Your task to perform on an android device: Show the shopping cart on costco. Search for "logitech g pro" on costco, select the first entry, and add it to the cart. Image 0: 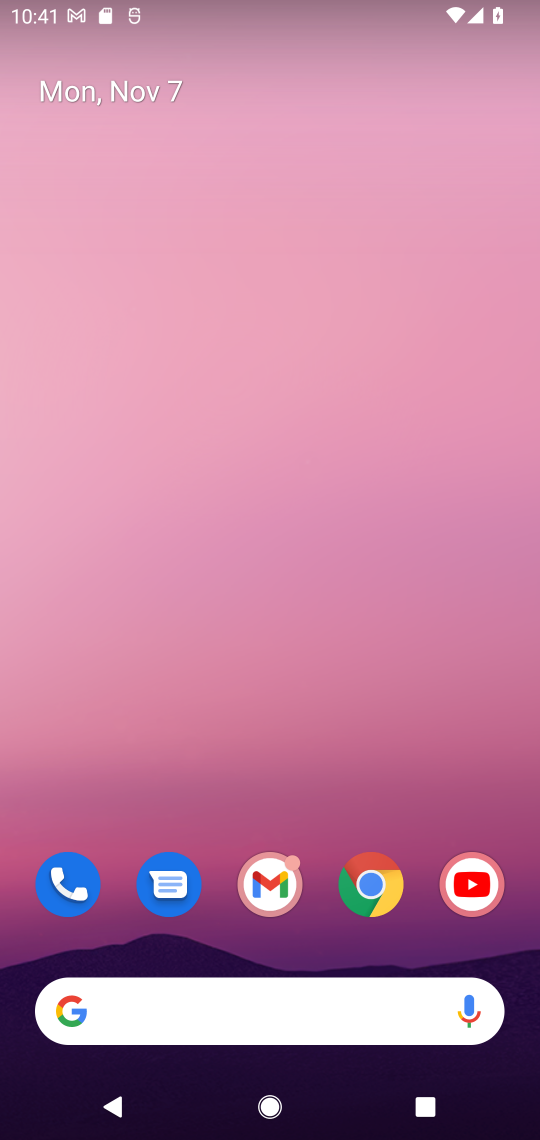
Step 0: click (377, 890)
Your task to perform on an android device: Show the shopping cart on costco. Search for "logitech g pro" on costco, select the first entry, and add it to the cart. Image 1: 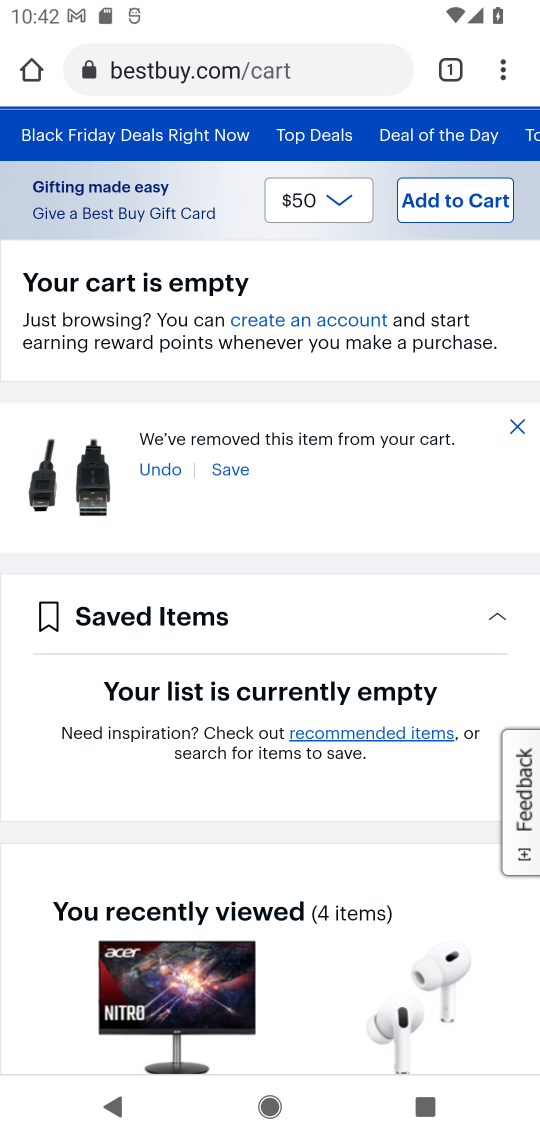
Step 1: click (269, 50)
Your task to perform on an android device: Show the shopping cart on costco. Search for "logitech g pro" on costco, select the first entry, and add it to the cart. Image 2: 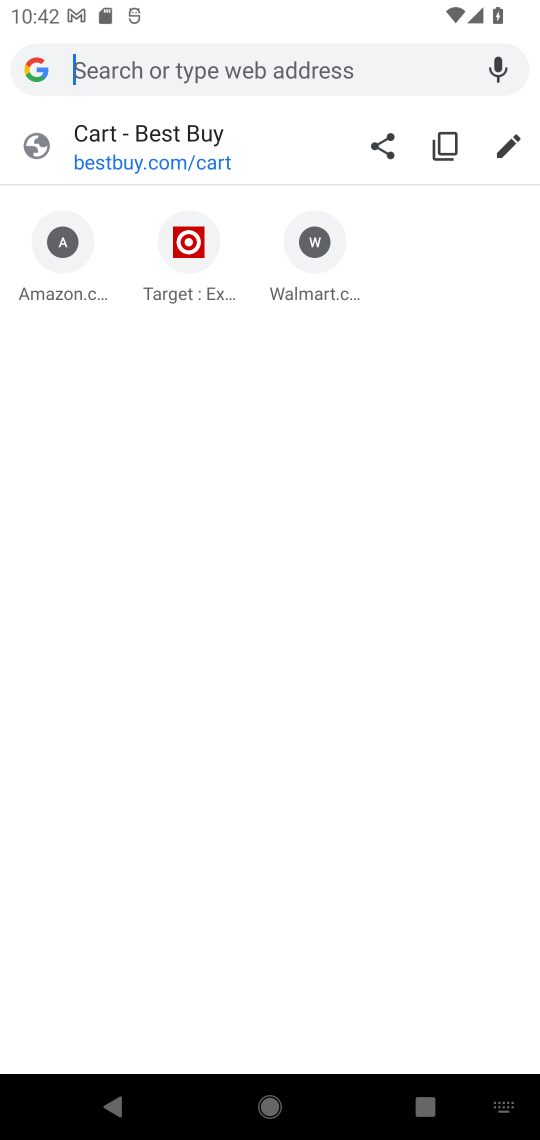
Step 2: type "costco"
Your task to perform on an android device: Show the shopping cart on costco. Search for "logitech g pro" on costco, select the first entry, and add it to the cart. Image 3: 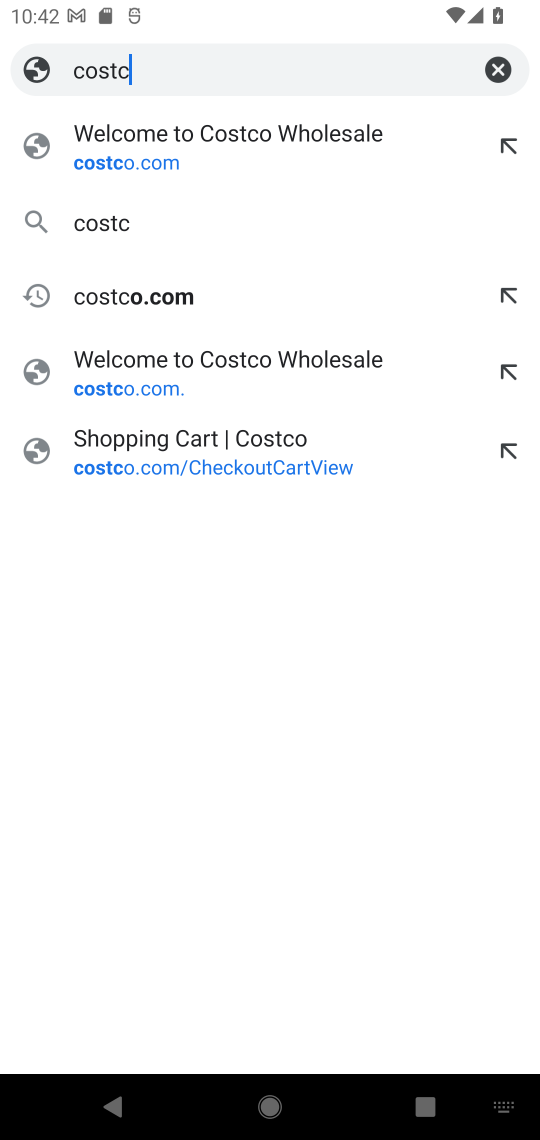
Step 3: press enter
Your task to perform on an android device: Show the shopping cart on costco. Search for "logitech g pro" on costco, select the first entry, and add it to the cart. Image 4: 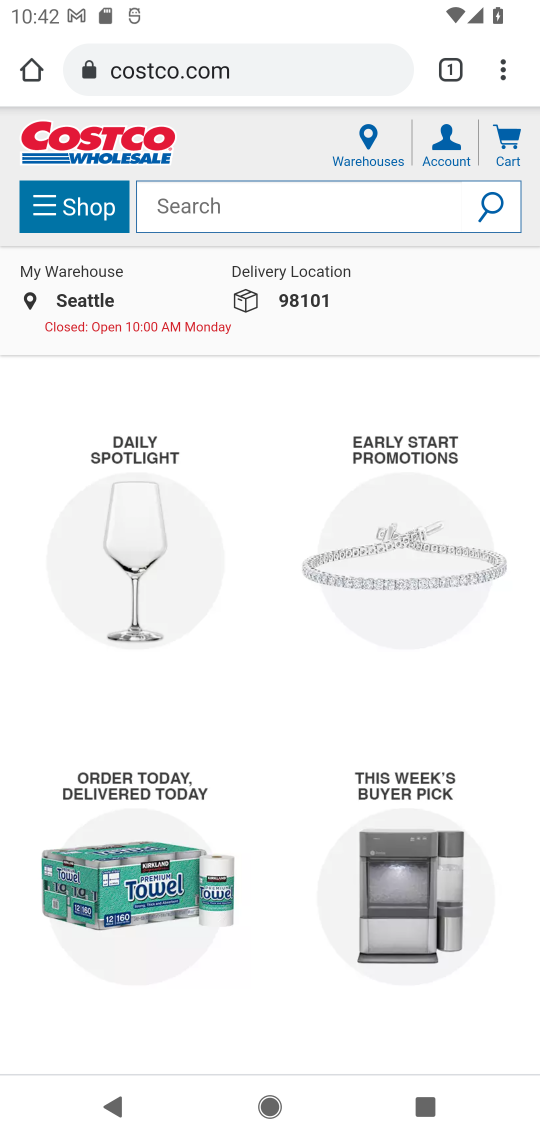
Step 4: click (503, 140)
Your task to perform on an android device: Show the shopping cart on costco. Search for "logitech g pro" on costco, select the first entry, and add it to the cart. Image 5: 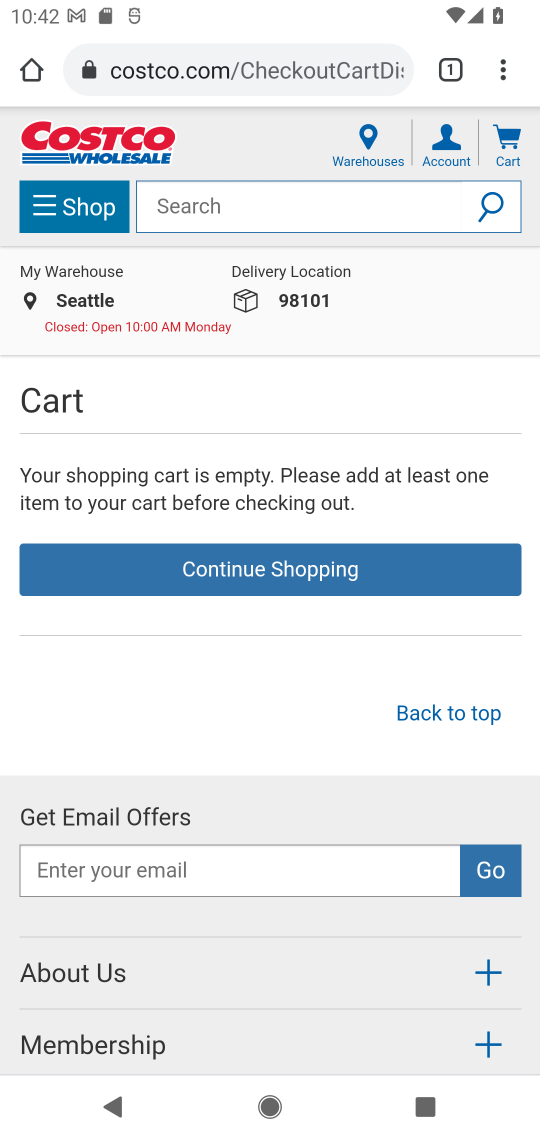
Step 5: click (305, 187)
Your task to perform on an android device: Show the shopping cart on costco. Search for "logitech g pro" on costco, select the first entry, and add it to the cart. Image 6: 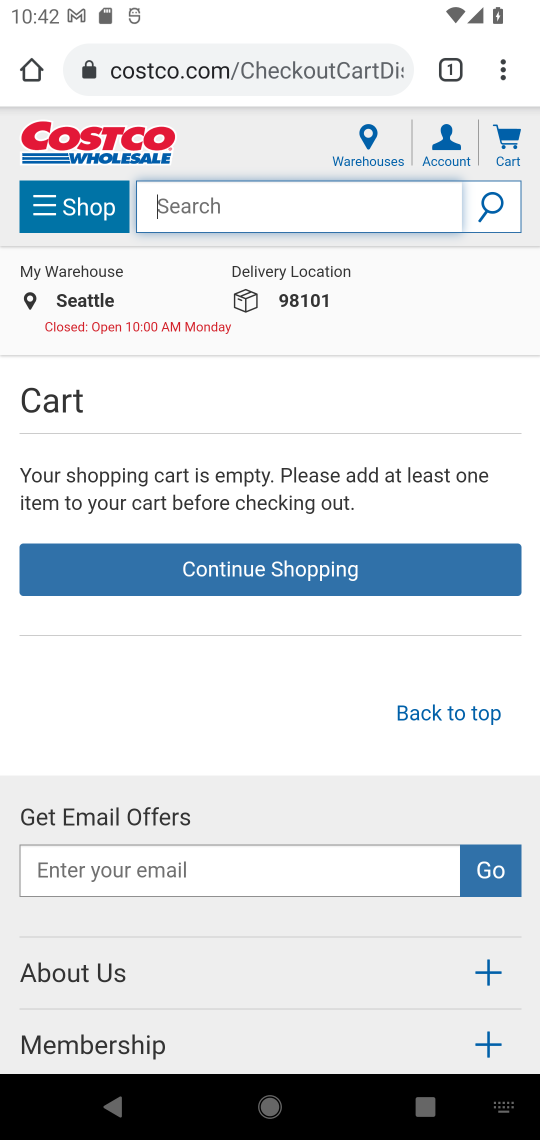
Step 6: type "logitech g pro"
Your task to perform on an android device: Show the shopping cart on costco. Search for "logitech g pro" on costco, select the first entry, and add it to the cart. Image 7: 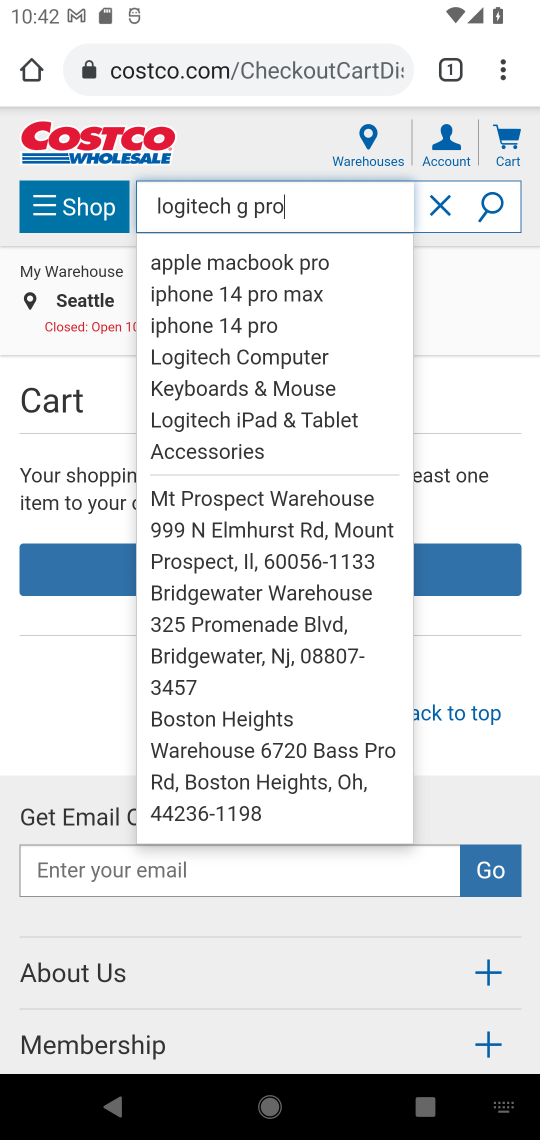
Step 7: click (523, 403)
Your task to perform on an android device: Show the shopping cart on costco. Search for "logitech g pro" on costco, select the first entry, and add it to the cart. Image 8: 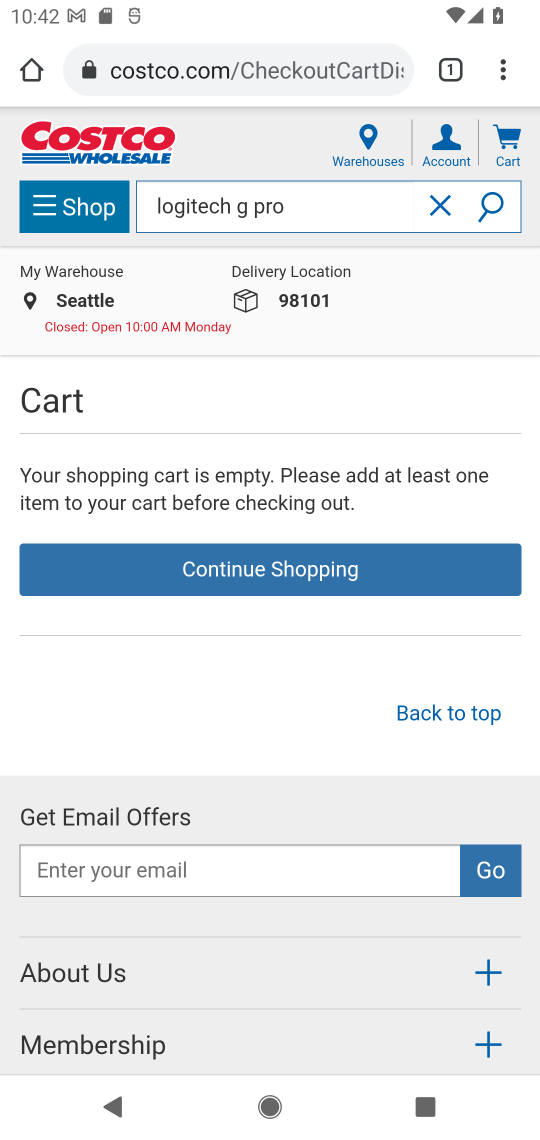
Step 8: task complete